Your task to perform on an android device: Go to battery settings Image 0: 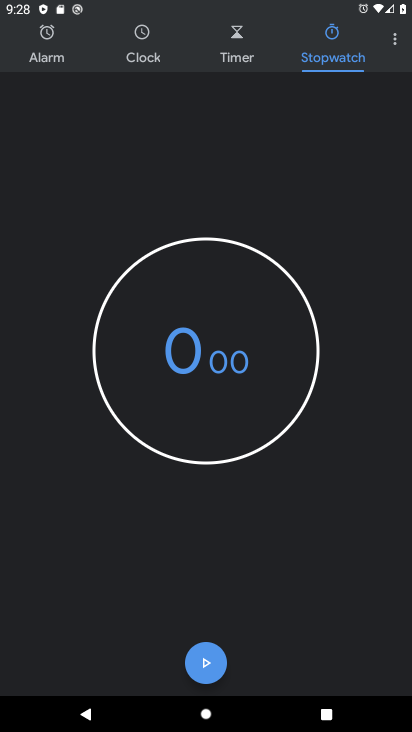
Step 0: press home button
Your task to perform on an android device: Go to battery settings Image 1: 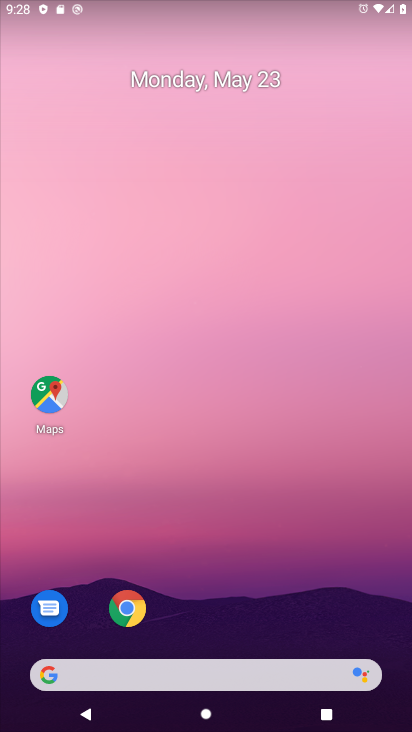
Step 1: drag from (260, 619) to (216, 349)
Your task to perform on an android device: Go to battery settings Image 2: 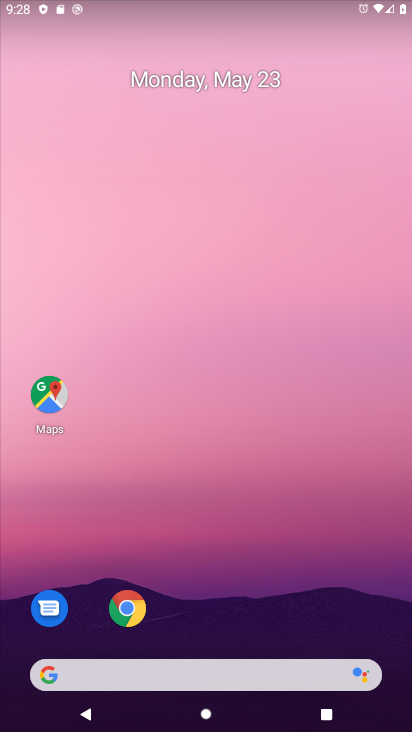
Step 2: drag from (230, 621) to (191, 183)
Your task to perform on an android device: Go to battery settings Image 3: 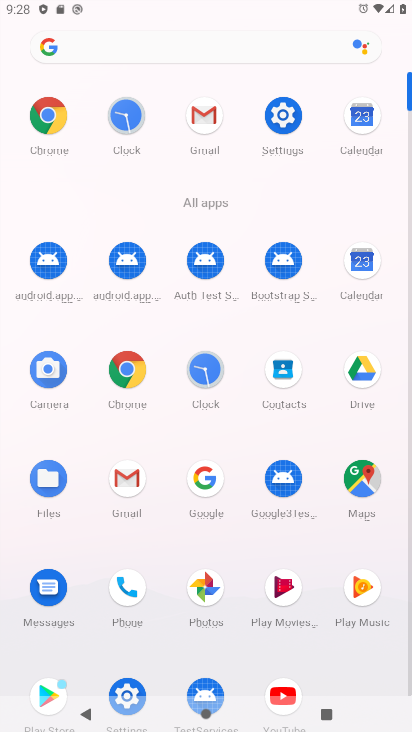
Step 3: click (277, 117)
Your task to perform on an android device: Go to battery settings Image 4: 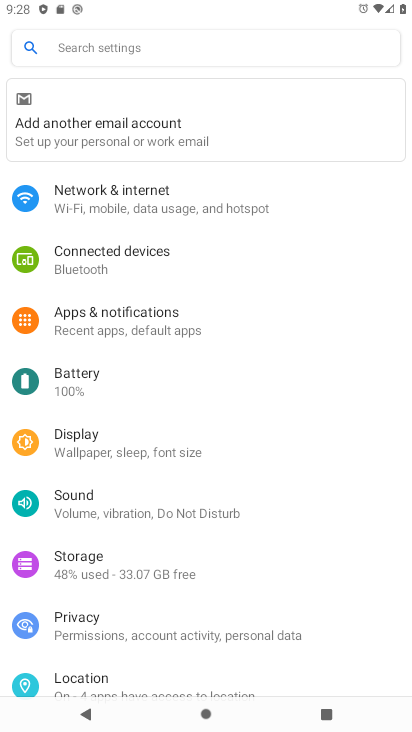
Step 4: click (127, 383)
Your task to perform on an android device: Go to battery settings Image 5: 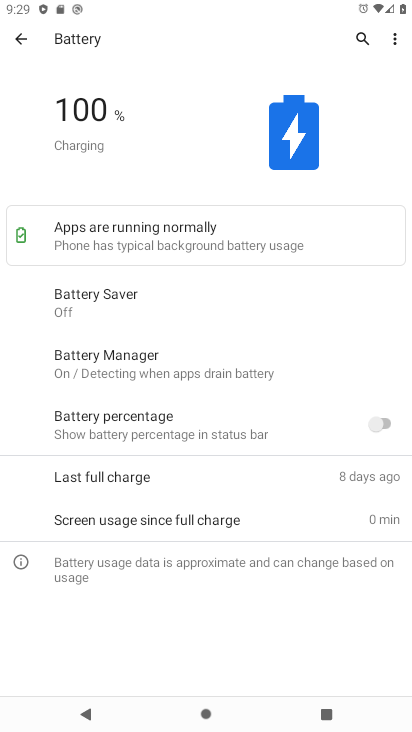
Step 5: task complete